Your task to perform on an android device: Open sound settings Image 0: 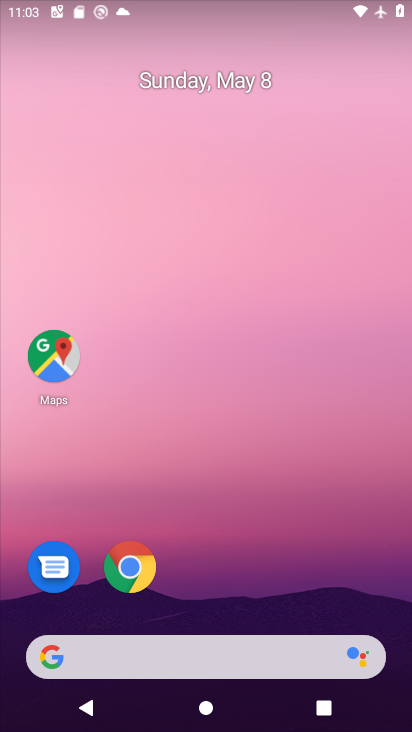
Step 0: drag from (317, 561) to (238, 124)
Your task to perform on an android device: Open sound settings Image 1: 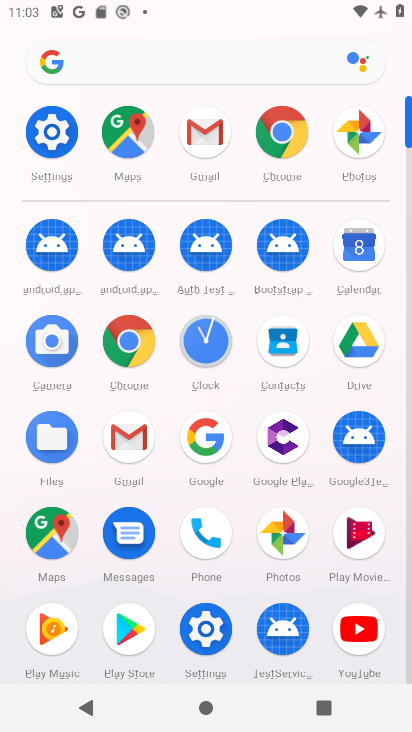
Step 1: click (47, 175)
Your task to perform on an android device: Open sound settings Image 2: 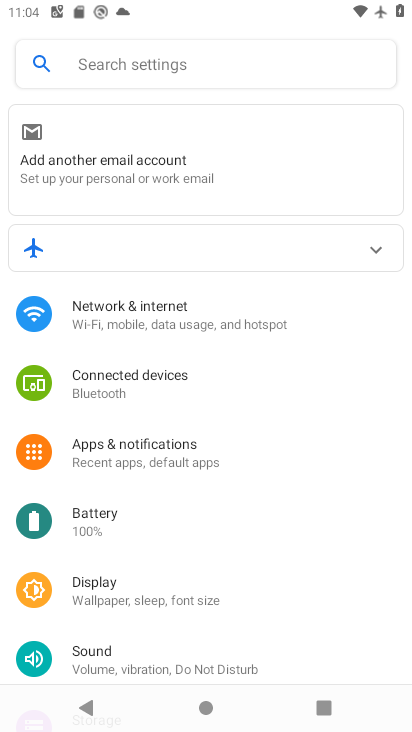
Step 2: click (140, 668)
Your task to perform on an android device: Open sound settings Image 3: 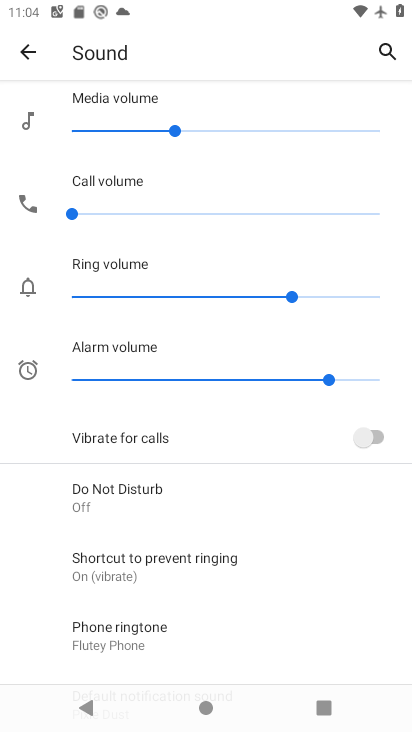
Step 3: task complete